Your task to perform on an android device: Go to internet settings Image 0: 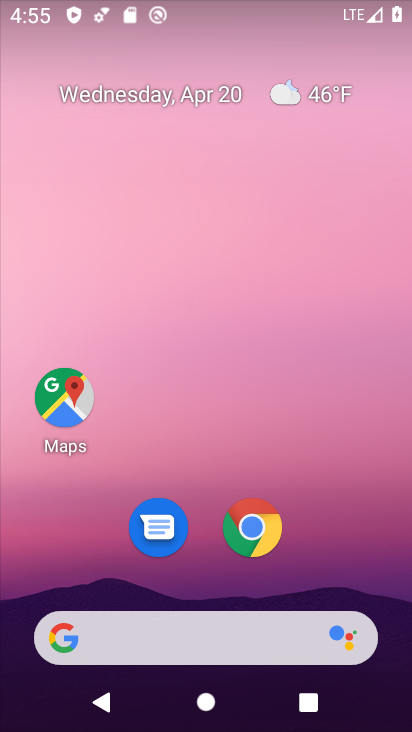
Step 0: drag from (208, 568) to (208, 93)
Your task to perform on an android device: Go to internet settings Image 1: 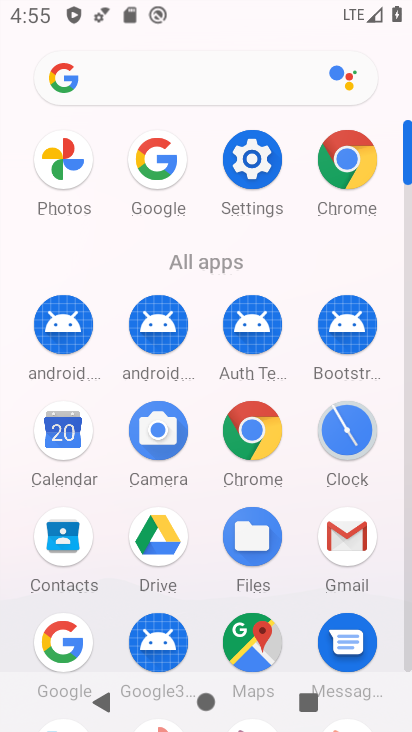
Step 1: click (269, 163)
Your task to perform on an android device: Go to internet settings Image 2: 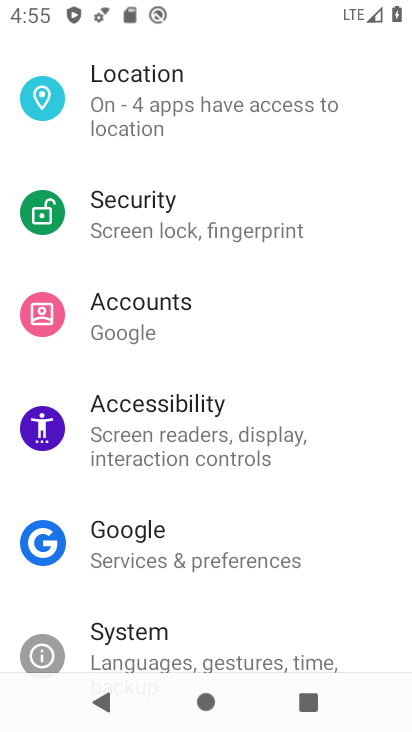
Step 2: drag from (228, 205) to (170, 709)
Your task to perform on an android device: Go to internet settings Image 3: 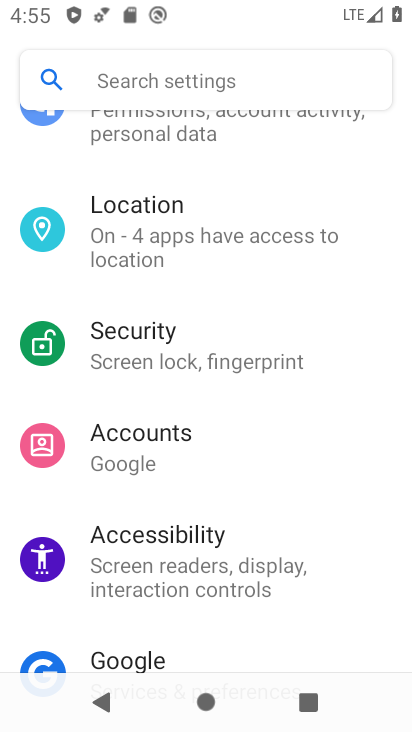
Step 3: drag from (211, 177) to (187, 596)
Your task to perform on an android device: Go to internet settings Image 4: 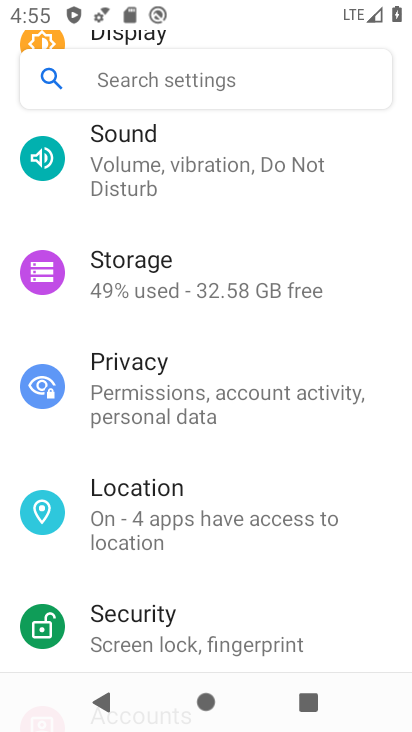
Step 4: drag from (201, 226) to (165, 668)
Your task to perform on an android device: Go to internet settings Image 5: 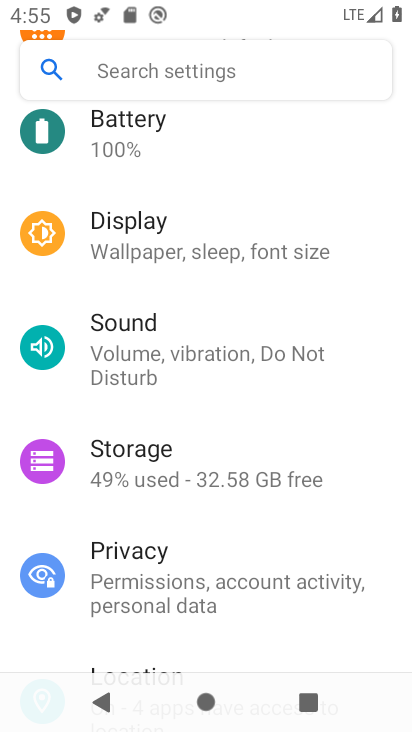
Step 5: drag from (236, 172) to (198, 606)
Your task to perform on an android device: Go to internet settings Image 6: 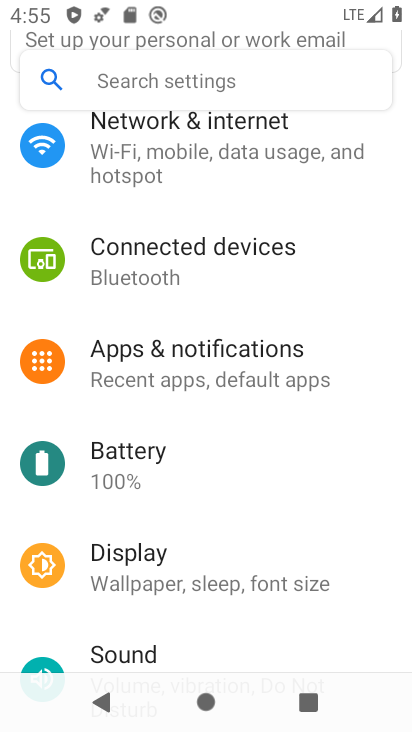
Step 6: click (188, 150)
Your task to perform on an android device: Go to internet settings Image 7: 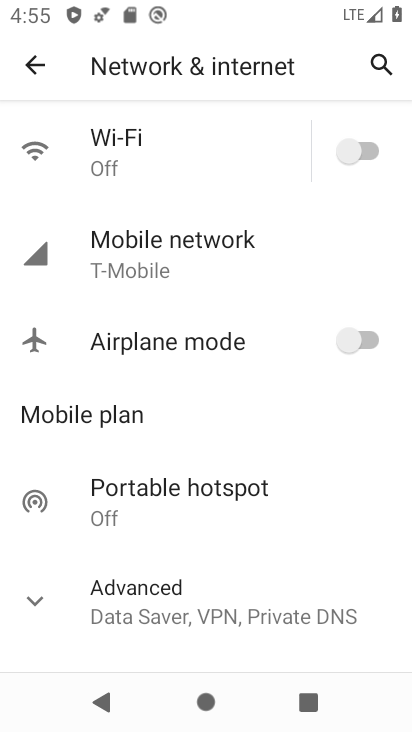
Step 7: task complete